Your task to perform on an android device: Open Android settings Image 0: 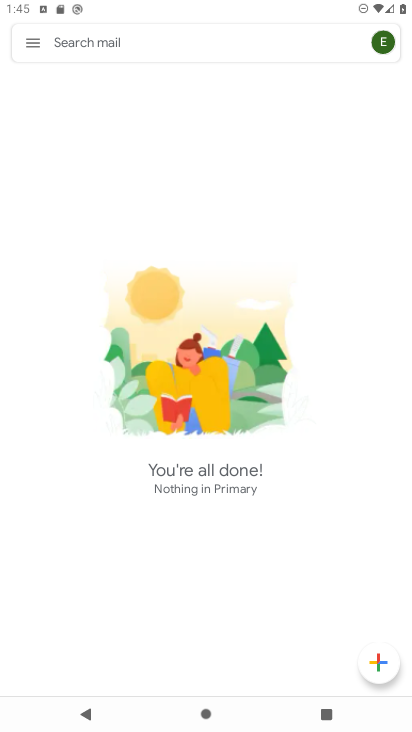
Step 0: press home button
Your task to perform on an android device: Open Android settings Image 1: 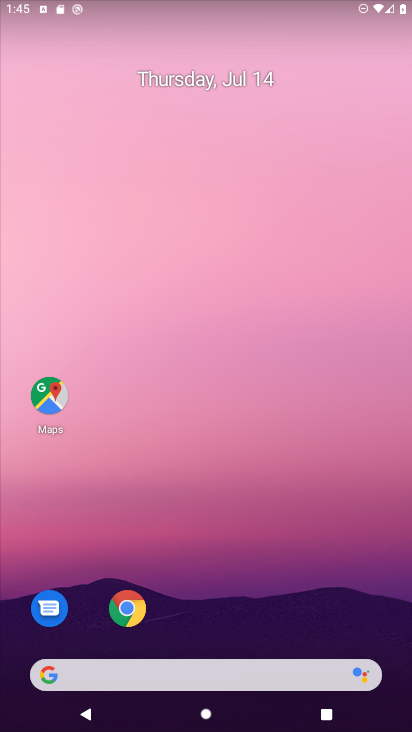
Step 1: drag from (380, 647) to (309, 138)
Your task to perform on an android device: Open Android settings Image 2: 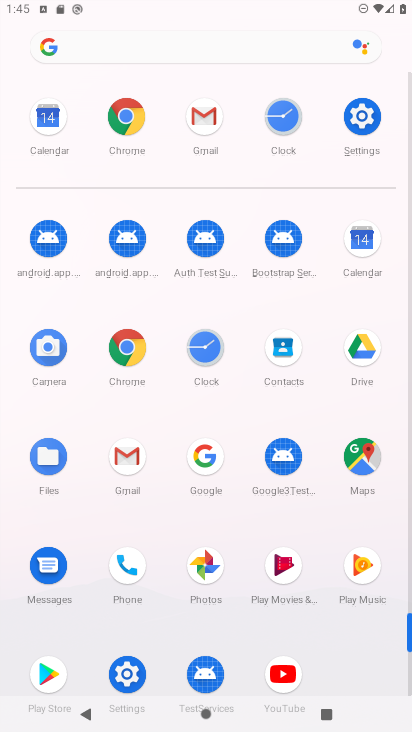
Step 2: click (129, 675)
Your task to perform on an android device: Open Android settings Image 3: 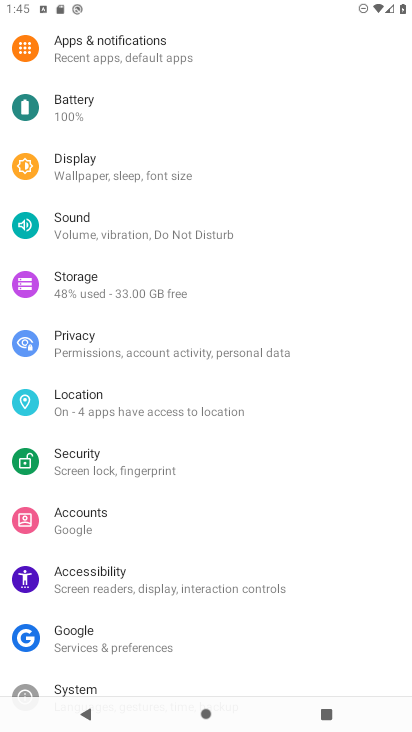
Step 3: drag from (328, 654) to (305, 167)
Your task to perform on an android device: Open Android settings Image 4: 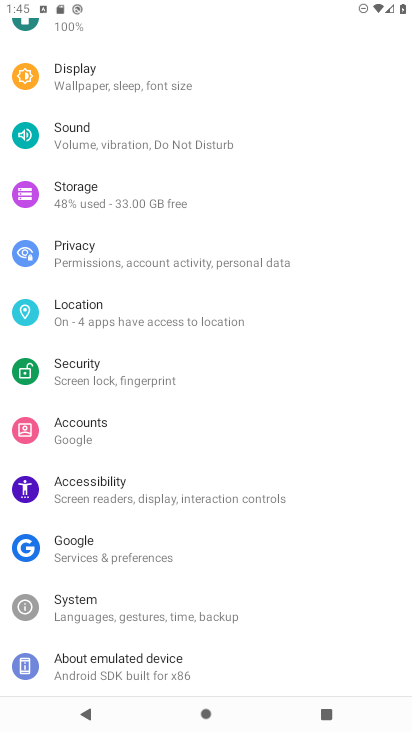
Step 4: click (80, 653)
Your task to perform on an android device: Open Android settings Image 5: 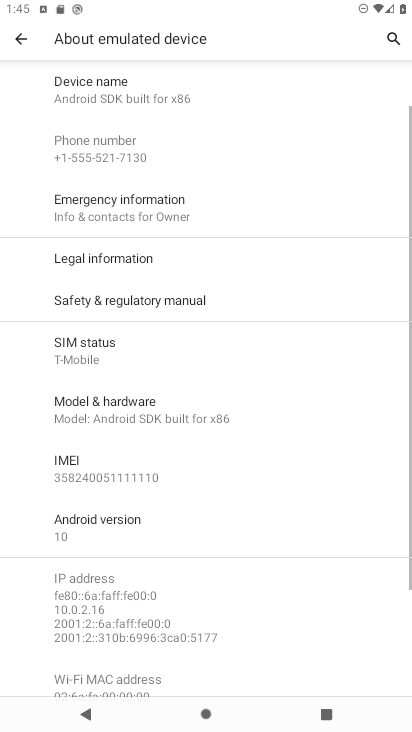
Step 5: task complete